Your task to perform on an android device: make emails show in primary in the gmail app Image 0: 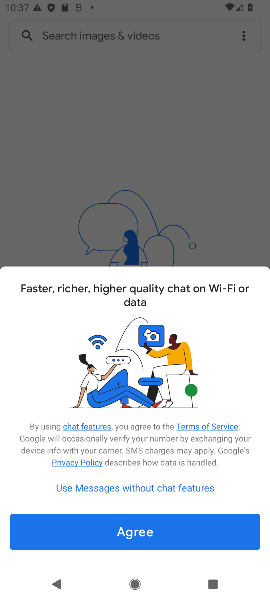
Step 0: press home button
Your task to perform on an android device: make emails show in primary in the gmail app Image 1: 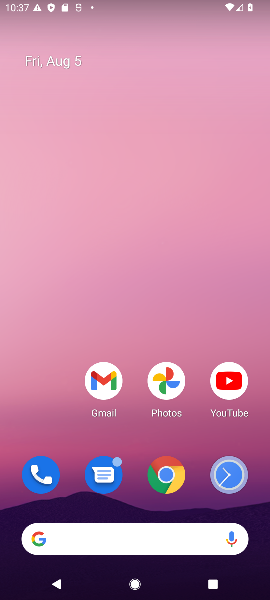
Step 1: click (104, 370)
Your task to perform on an android device: make emails show in primary in the gmail app Image 2: 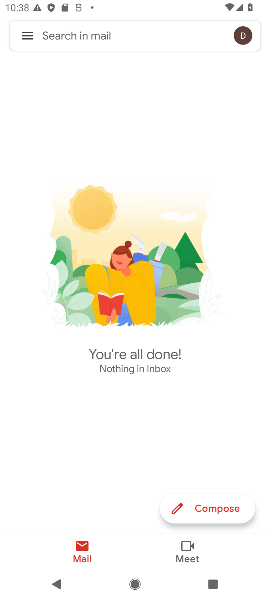
Step 2: click (21, 34)
Your task to perform on an android device: make emails show in primary in the gmail app Image 3: 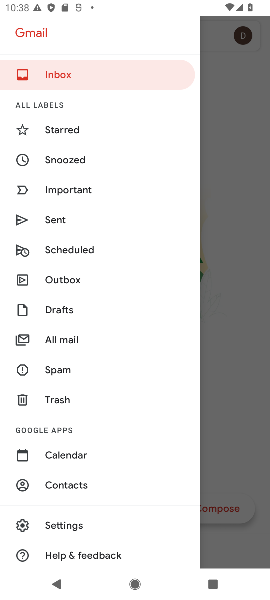
Step 3: click (67, 523)
Your task to perform on an android device: make emails show in primary in the gmail app Image 4: 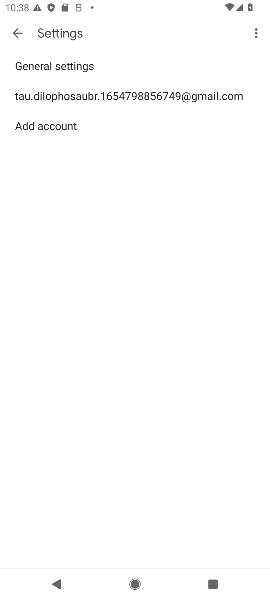
Step 4: click (100, 99)
Your task to perform on an android device: make emails show in primary in the gmail app Image 5: 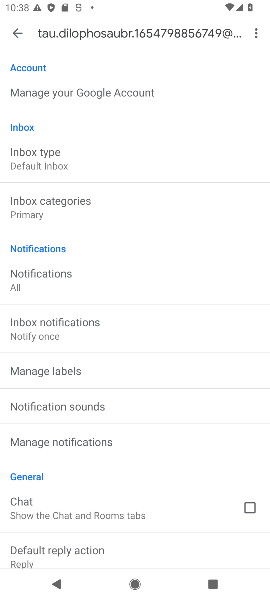
Step 5: click (54, 168)
Your task to perform on an android device: make emails show in primary in the gmail app Image 6: 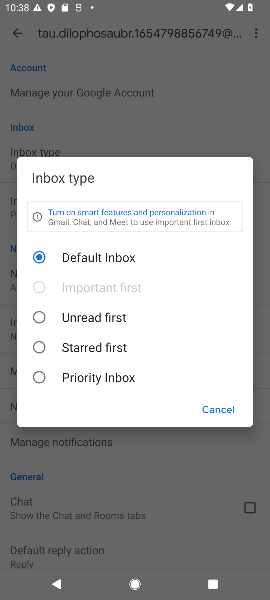
Step 6: click (209, 409)
Your task to perform on an android device: make emails show in primary in the gmail app Image 7: 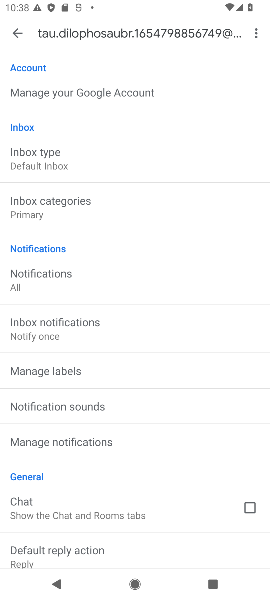
Step 7: task complete